Your task to perform on an android device: What's the news in Ecuador? Image 0: 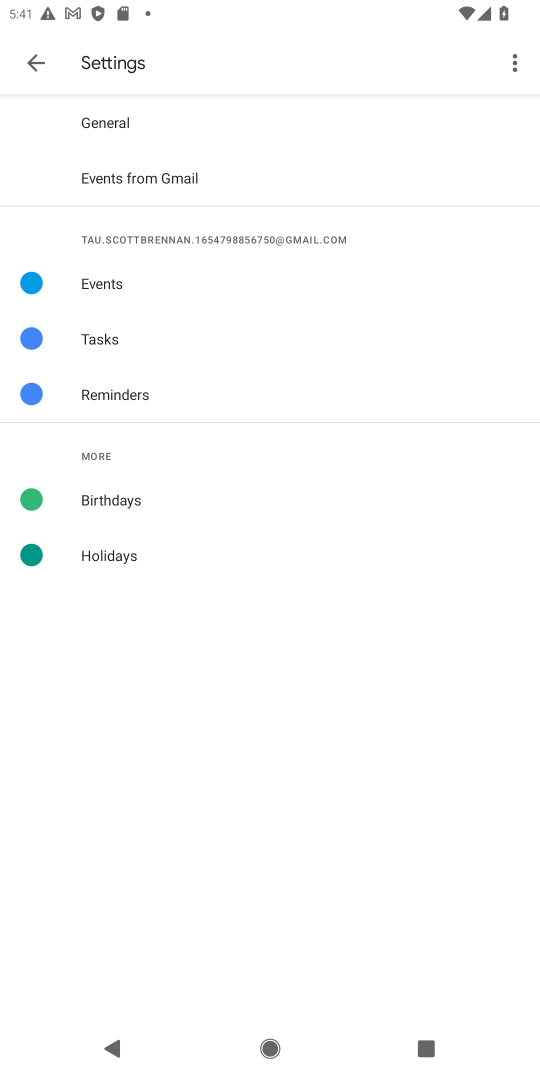
Step 0: press home button
Your task to perform on an android device: What's the news in Ecuador? Image 1: 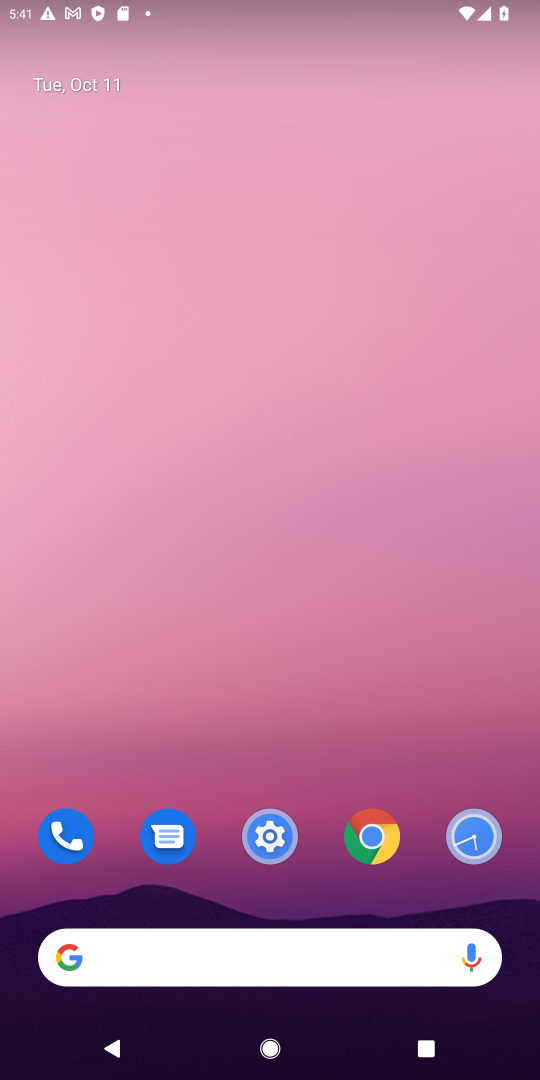
Step 1: click (374, 842)
Your task to perform on an android device: What's the news in Ecuador? Image 2: 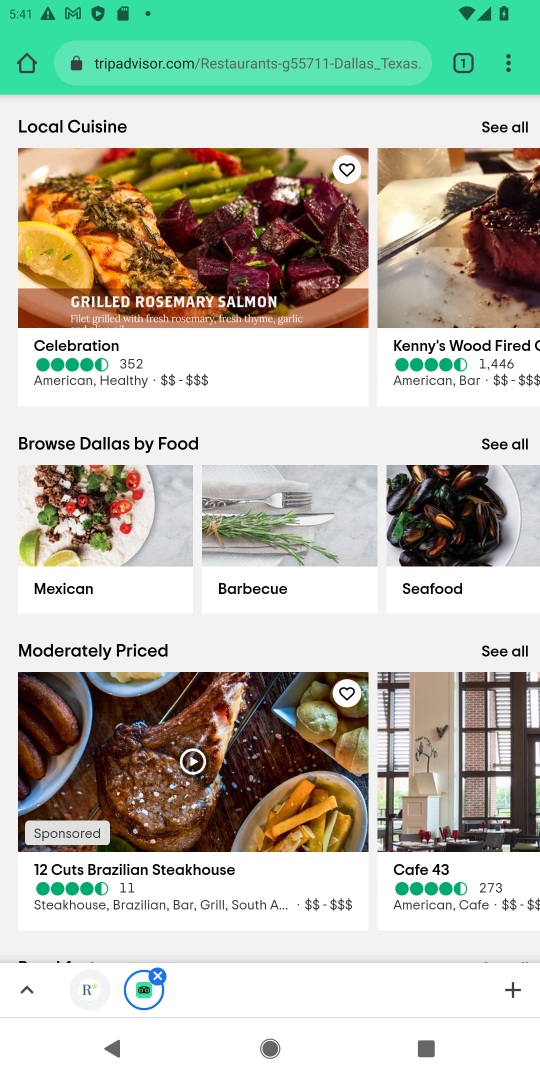
Step 2: click (243, 43)
Your task to perform on an android device: What's the news in Ecuador? Image 3: 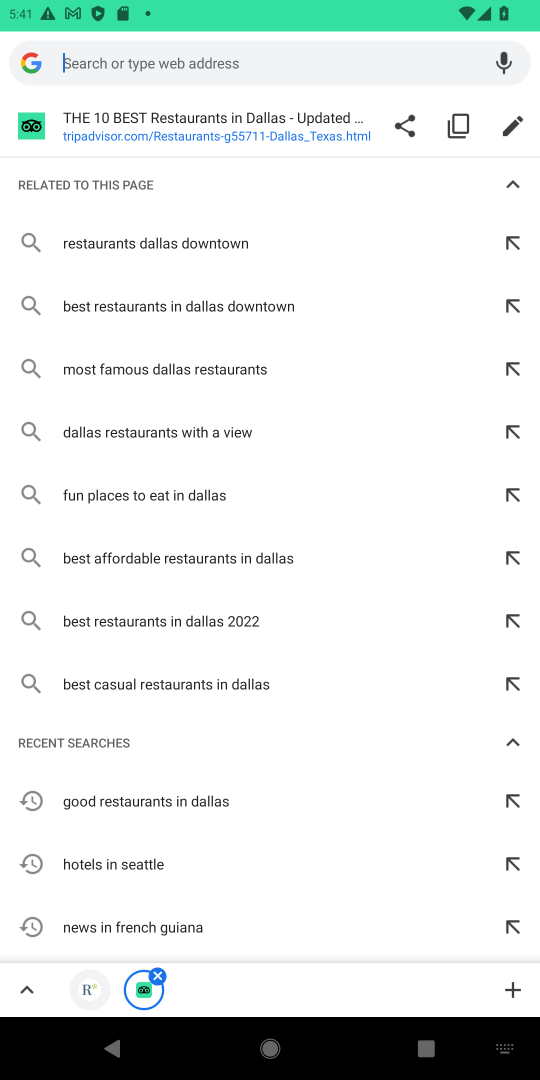
Step 3: type "news in ecuador"
Your task to perform on an android device: What's the news in Ecuador? Image 4: 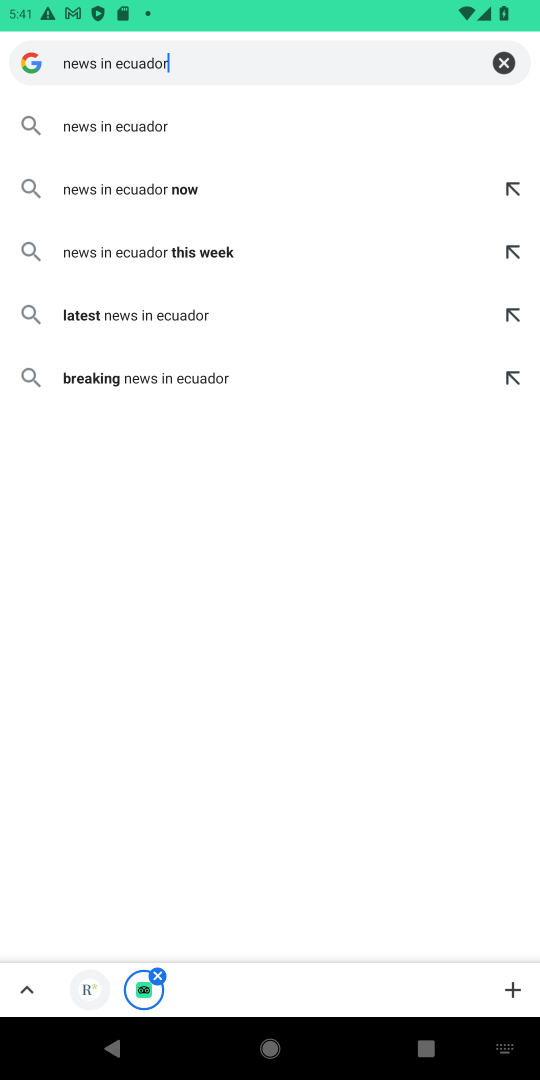
Step 4: click (135, 131)
Your task to perform on an android device: What's the news in Ecuador? Image 5: 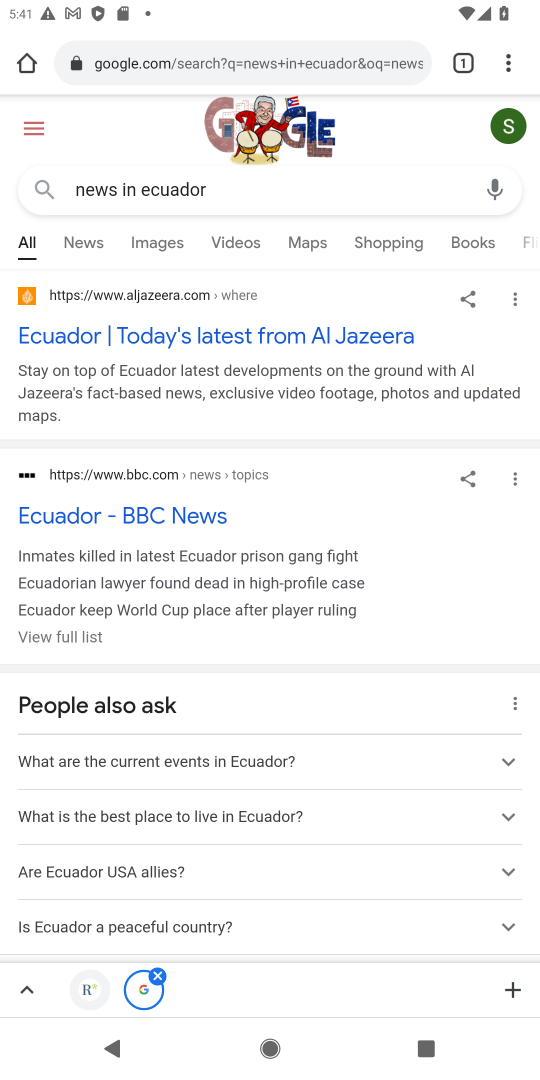
Step 5: click (49, 334)
Your task to perform on an android device: What's the news in Ecuador? Image 6: 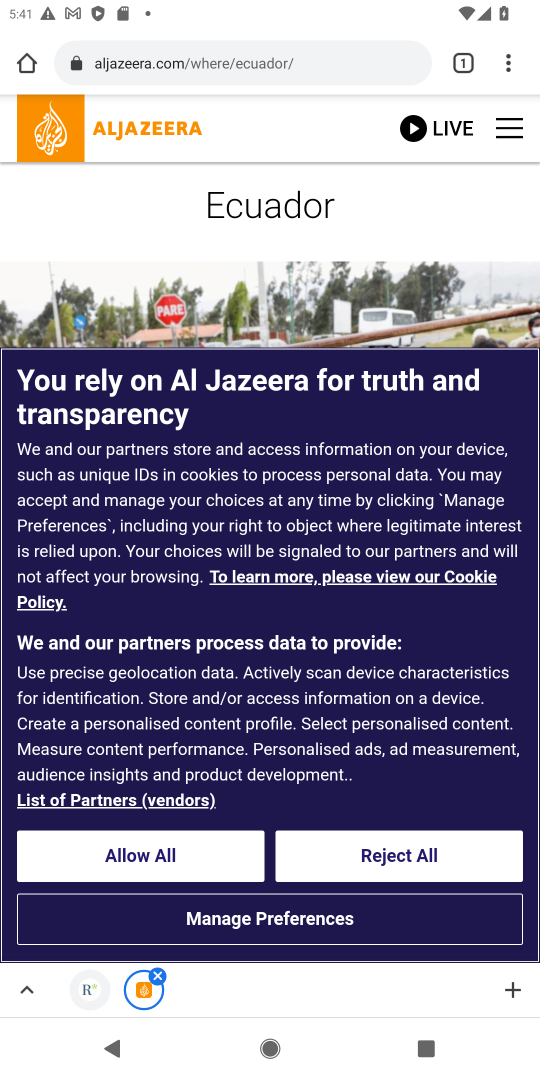
Step 6: click (153, 855)
Your task to perform on an android device: What's the news in Ecuador? Image 7: 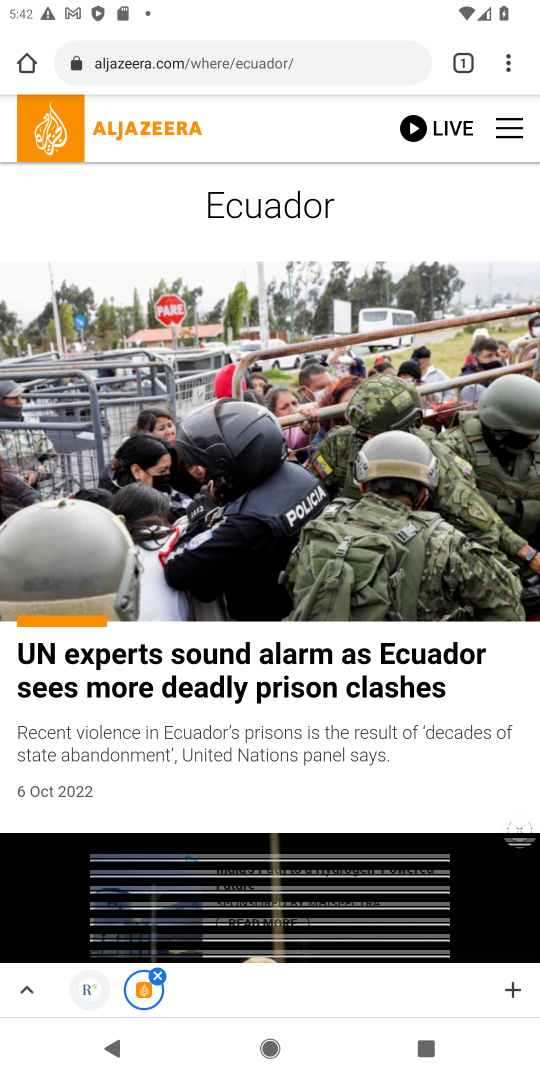
Step 7: drag from (380, 766) to (370, 240)
Your task to perform on an android device: What's the news in Ecuador? Image 8: 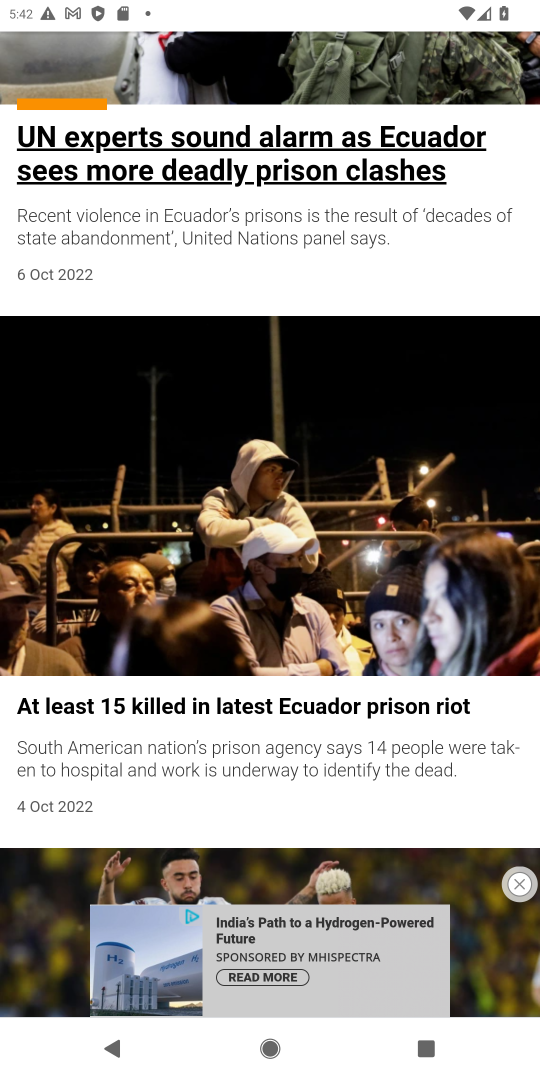
Step 8: click (154, 137)
Your task to perform on an android device: What's the news in Ecuador? Image 9: 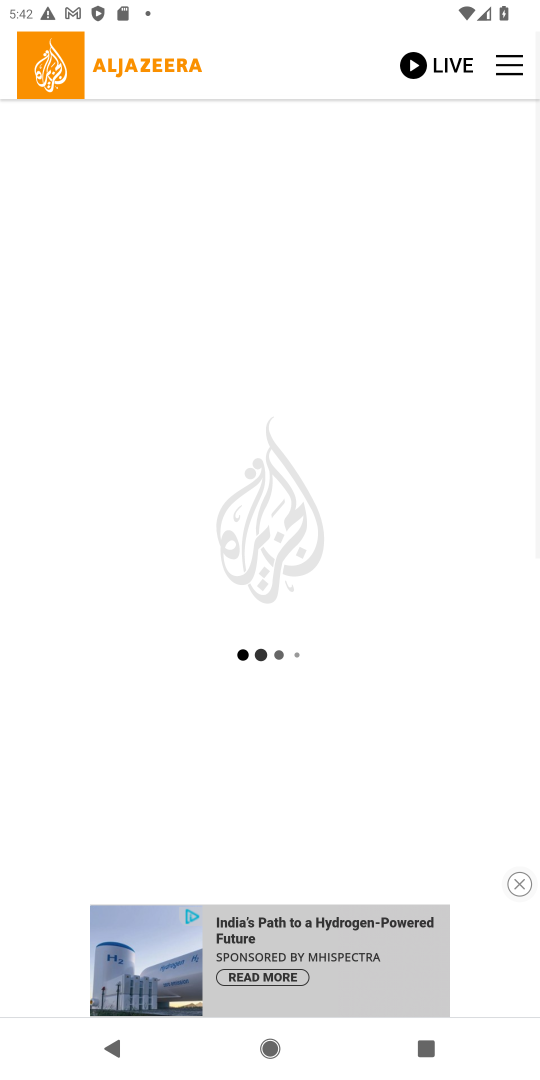
Step 9: click (518, 878)
Your task to perform on an android device: What's the news in Ecuador? Image 10: 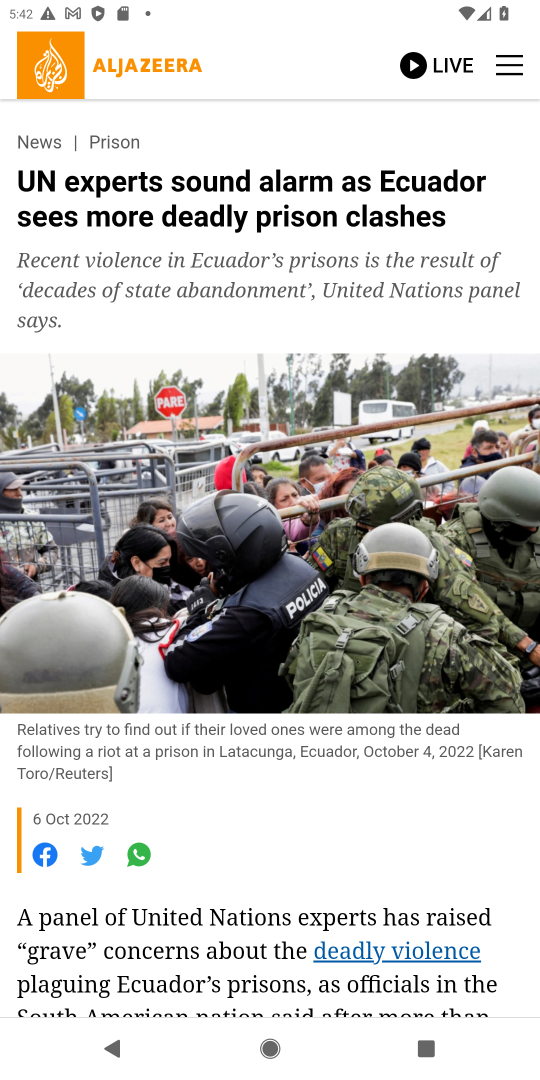
Step 10: task complete